Your task to perform on an android device: turn on javascript in the chrome app Image 0: 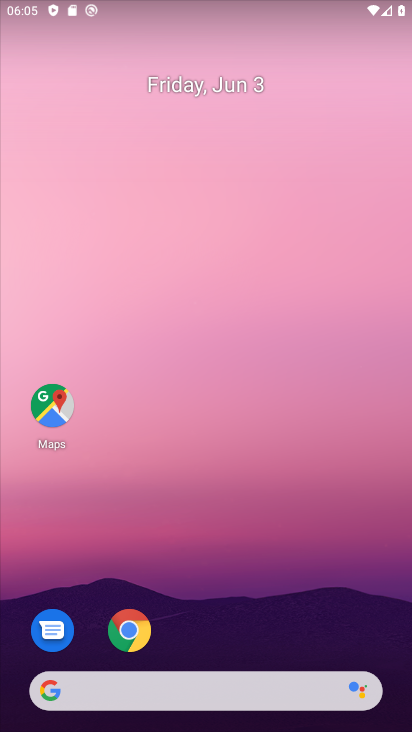
Step 0: click (142, 637)
Your task to perform on an android device: turn on javascript in the chrome app Image 1: 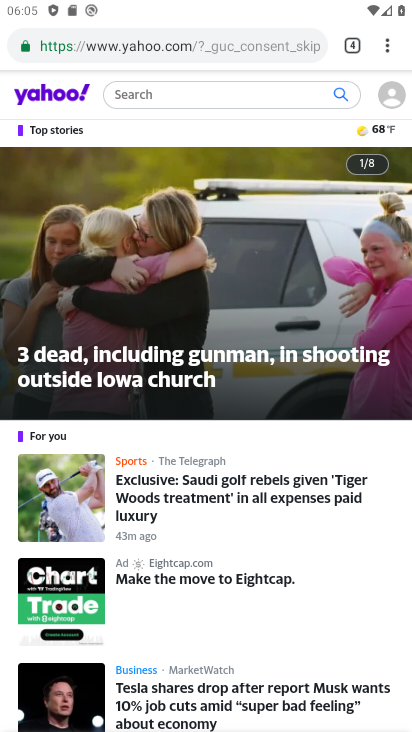
Step 1: click (390, 48)
Your task to perform on an android device: turn on javascript in the chrome app Image 2: 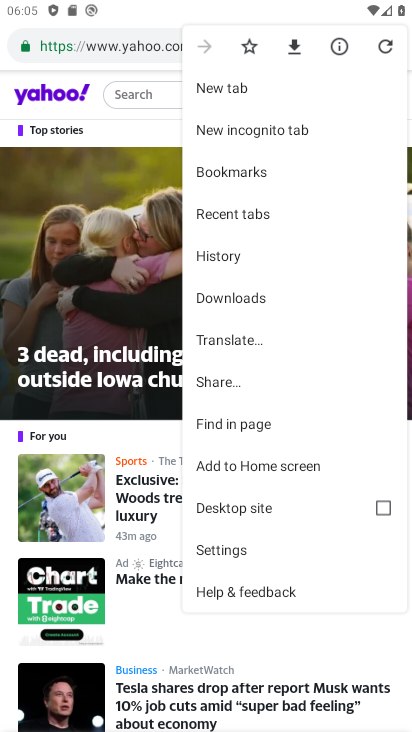
Step 2: click (274, 545)
Your task to perform on an android device: turn on javascript in the chrome app Image 3: 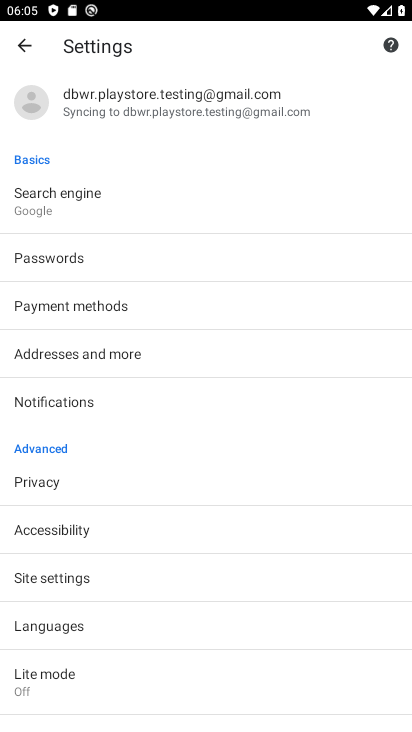
Step 3: drag from (54, 693) to (90, 222)
Your task to perform on an android device: turn on javascript in the chrome app Image 4: 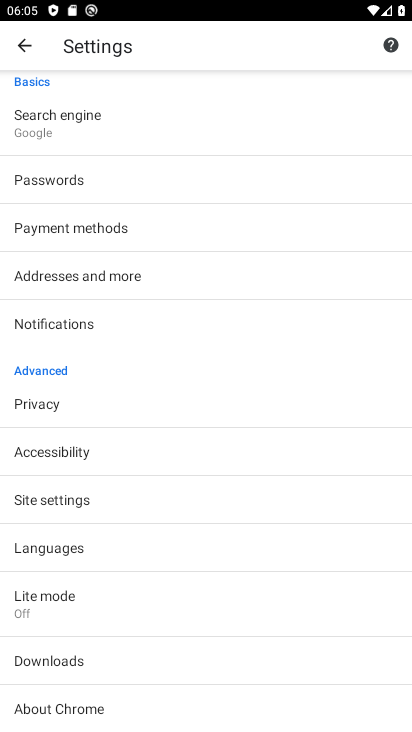
Step 4: click (73, 507)
Your task to perform on an android device: turn on javascript in the chrome app Image 5: 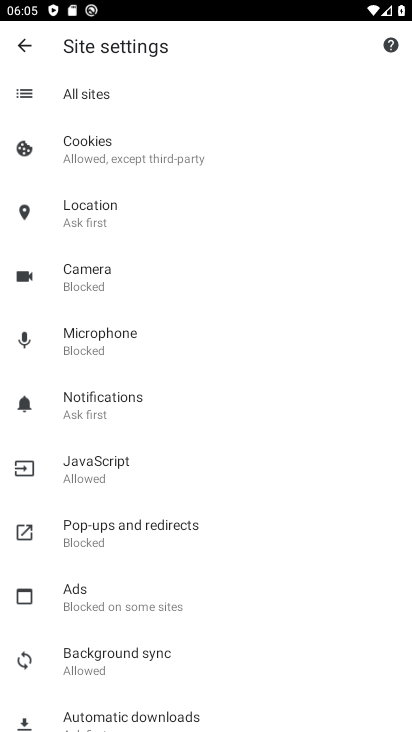
Step 5: click (127, 475)
Your task to perform on an android device: turn on javascript in the chrome app Image 6: 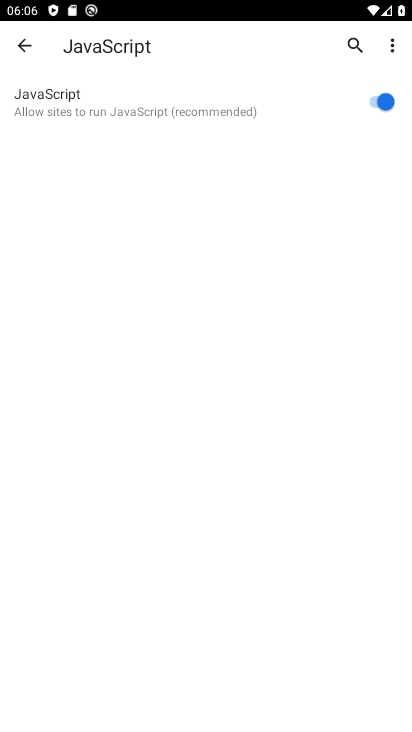
Step 6: task complete